Your task to perform on an android device: Open Amazon Image 0: 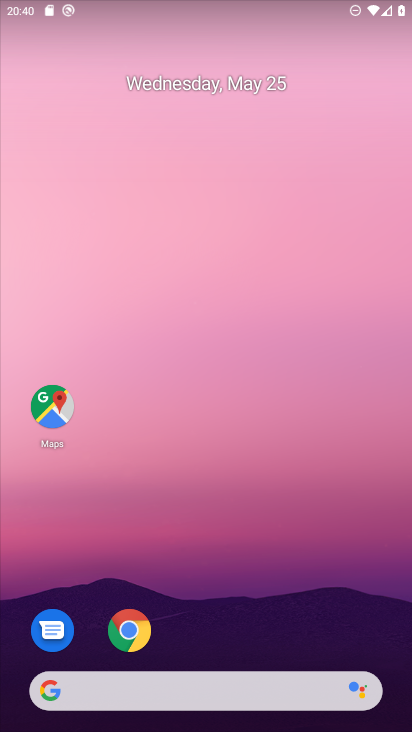
Step 0: drag from (277, 600) to (287, 80)
Your task to perform on an android device: Open Amazon Image 1: 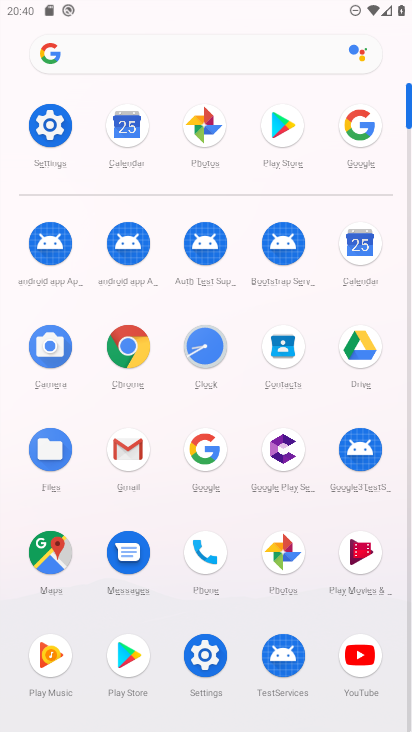
Step 1: click (131, 350)
Your task to perform on an android device: Open Amazon Image 2: 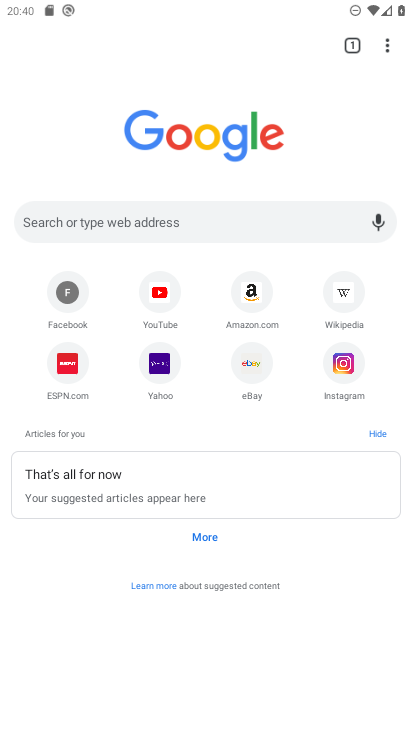
Step 2: click (256, 293)
Your task to perform on an android device: Open Amazon Image 3: 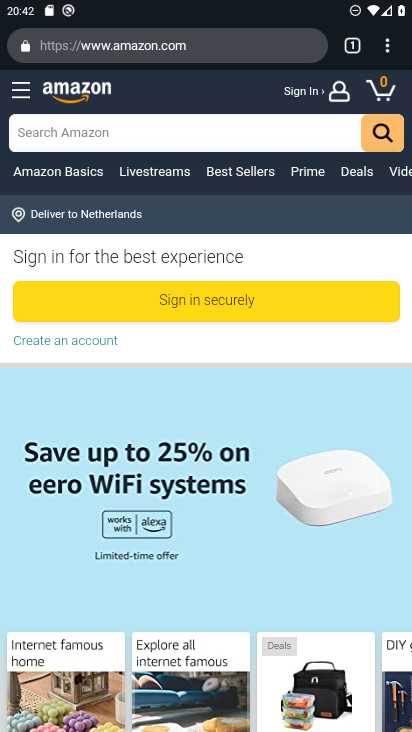
Step 3: task complete